Your task to perform on an android device: delete a single message in the gmail app Image 0: 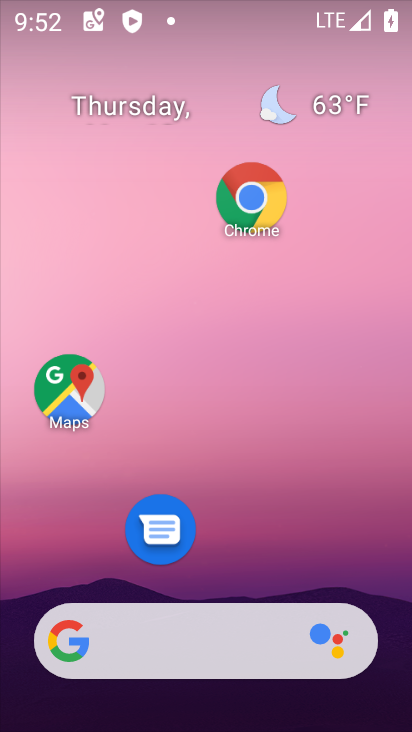
Step 0: drag from (237, 599) to (251, 10)
Your task to perform on an android device: delete a single message in the gmail app Image 1: 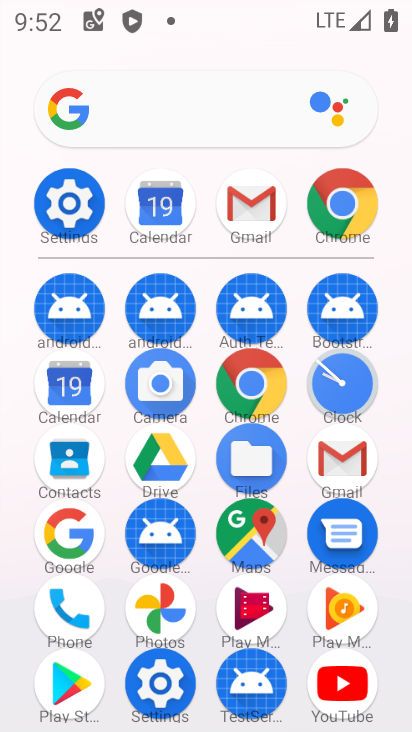
Step 1: click (345, 474)
Your task to perform on an android device: delete a single message in the gmail app Image 2: 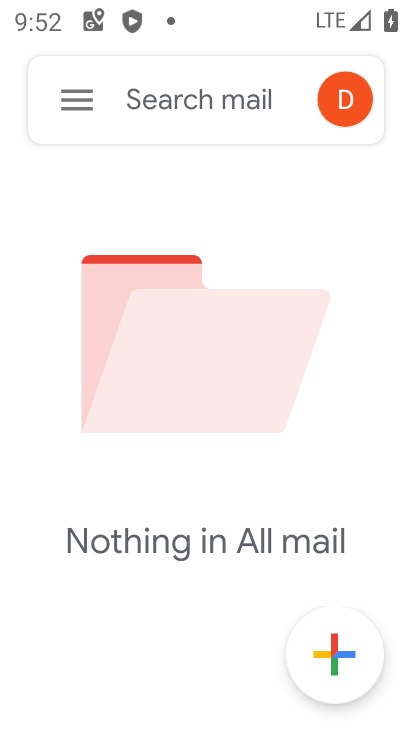
Step 2: task complete